Your task to perform on an android device: set default search engine in the chrome app Image 0: 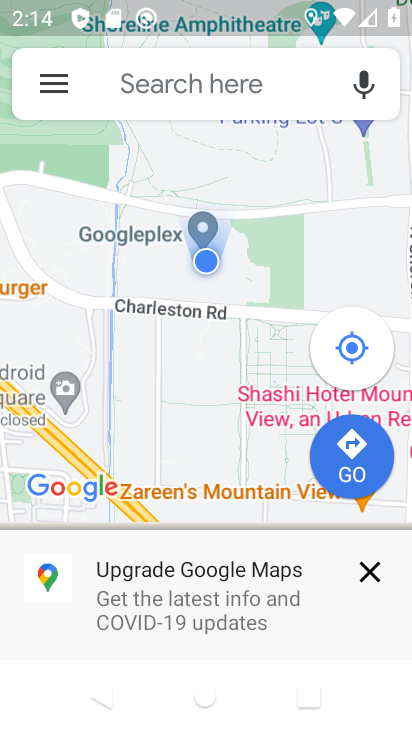
Step 0: press home button
Your task to perform on an android device: set default search engine in the chrome app Image 1: 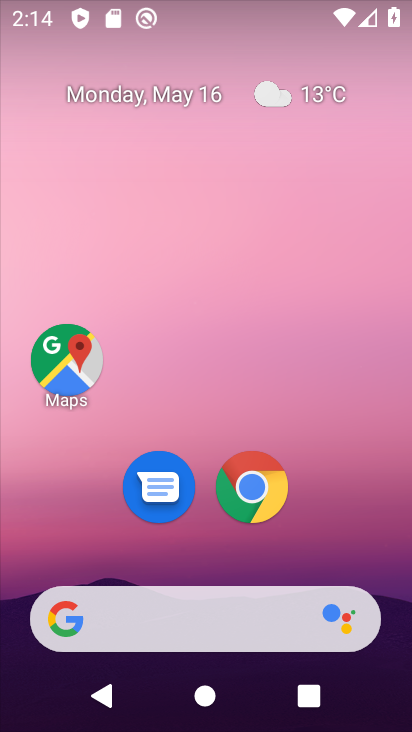
Step 1: drag from (279, 494) to (107, 83)
Your task to perform on an android device: set default search engine in the chrome app Image 2: 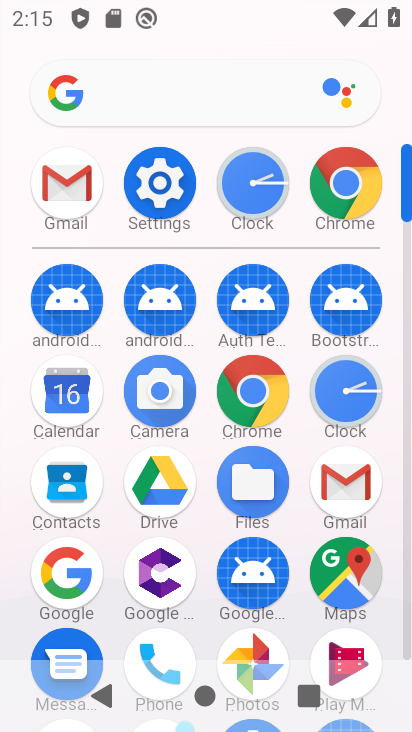
Step 2: click (343, 200)
Your task to perform on an android device: set default search engine in the chrome app Image 3: 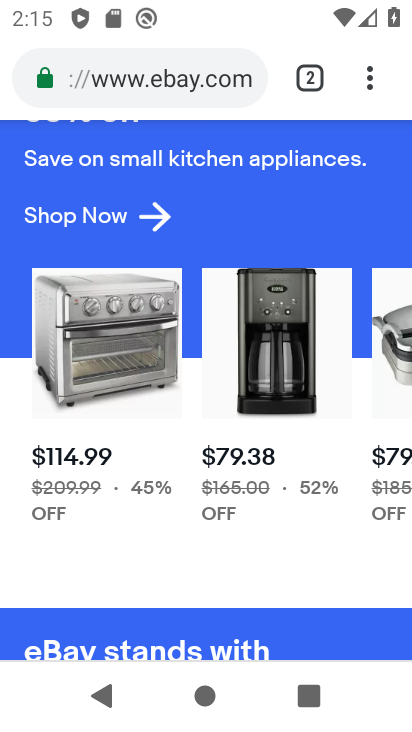
Step 3: click (372, 74)
Your task to perform on an android device: set default search engine in the chrome app Image 4: 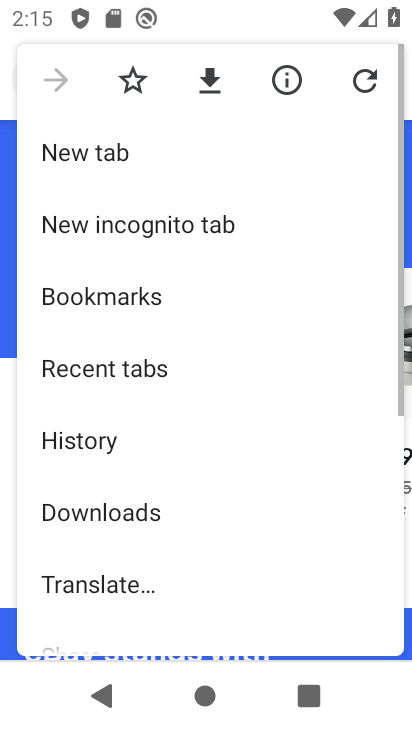
Step 4: drag from (81, 591) to (100, 206)
Your task to perform on an android device: set default search engine in the chrome app Image 5: 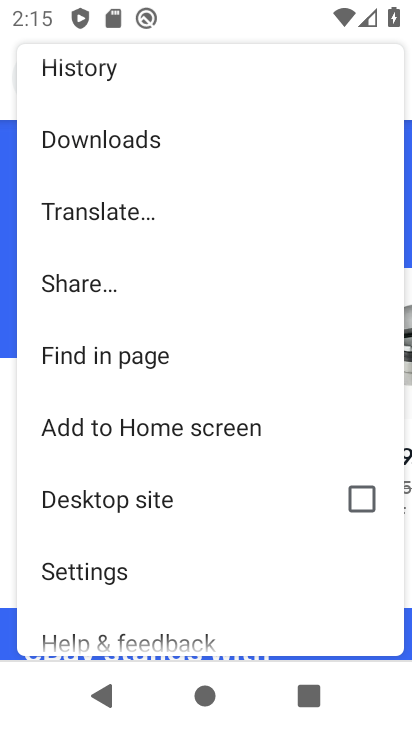
Step 5: click (73, 574)
Your task to perform on an android device: set default search engine in the chrome app Image 6: 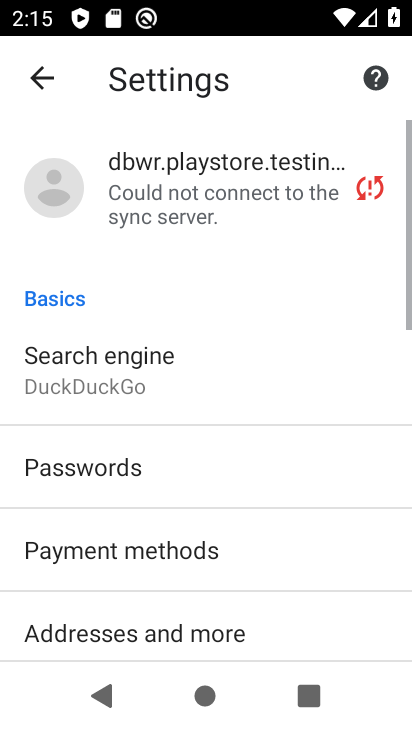
Step 6: drag from (73, 574) to (89, 311)
Your task to perform on an android device: set default search engine in the chrome app Image 7: 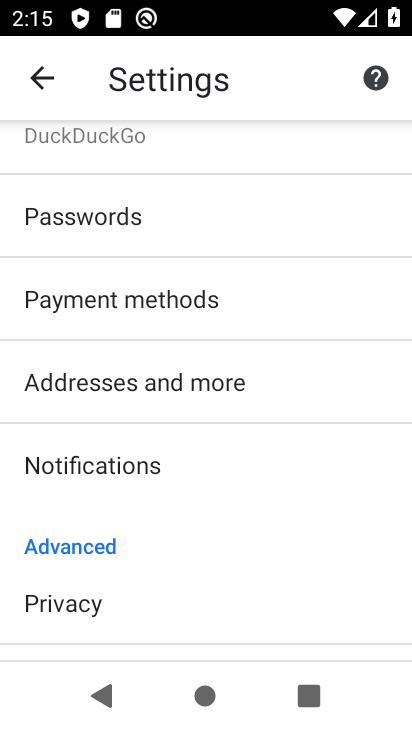
Step 7: drag from (154, 294) to (132, 482)
Your task to perform on an android device: set default search engine in the chrome app Image 8: 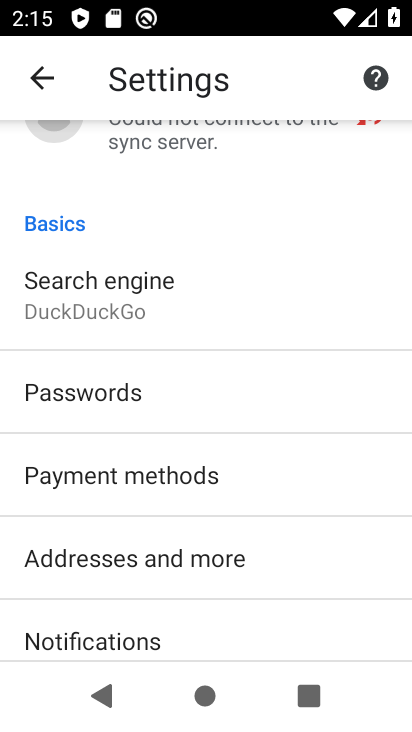
Step 8: click (82, 306)
Your task to perform on an android device: set default search engine in the chrome app Image 9: 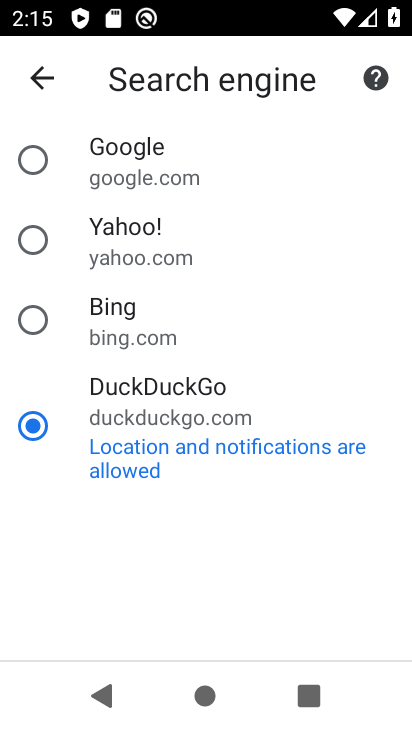
Step 9: click (28, 157)
Your task to perform on an android device: set default search engine in the chrome app Image 10: 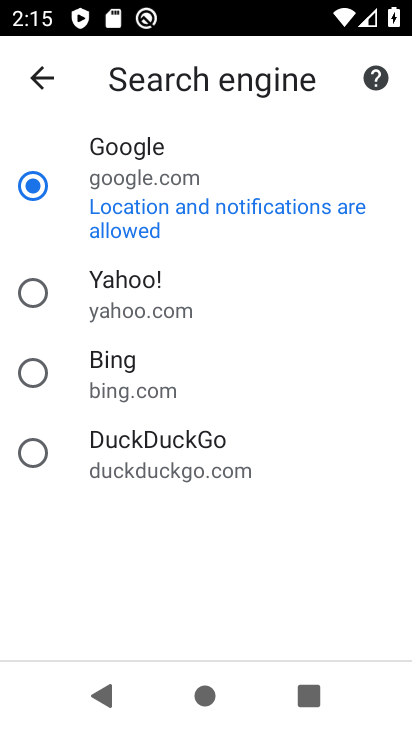
Step 10: task complete